Your task to perform on an android device: Search for sushi restaurants on Maps Image 0: 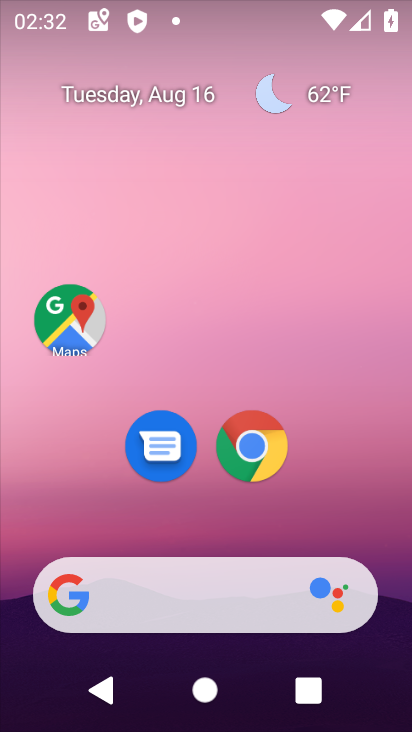
Step 0: press home button
Your task to perform on an android device: Search for sushi restaurants on Maps Image 1: 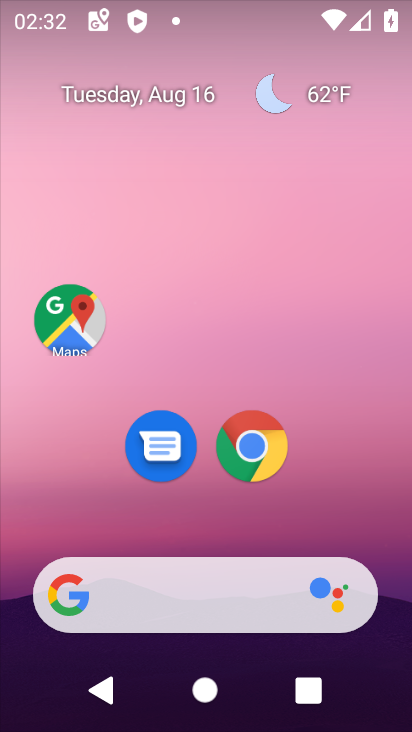
Step 1: click (70, 321)
Your task to perform on an android device: Search for sushi restaurants on Maps Image 2: 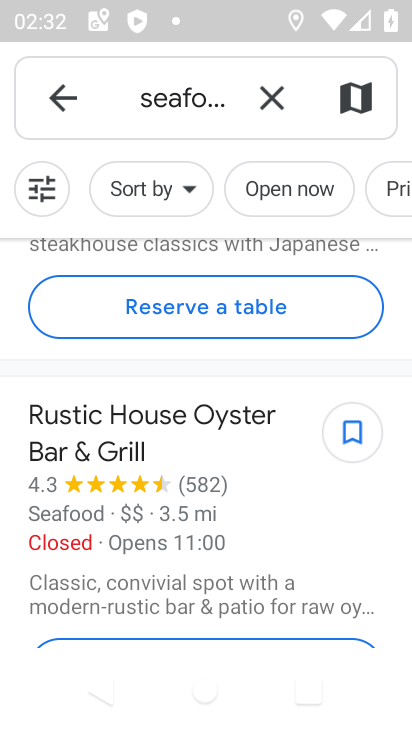
Step 2: click (272, 96)
Your task to perform on an android device: Search for sushi restaurants on Maps Image 3: 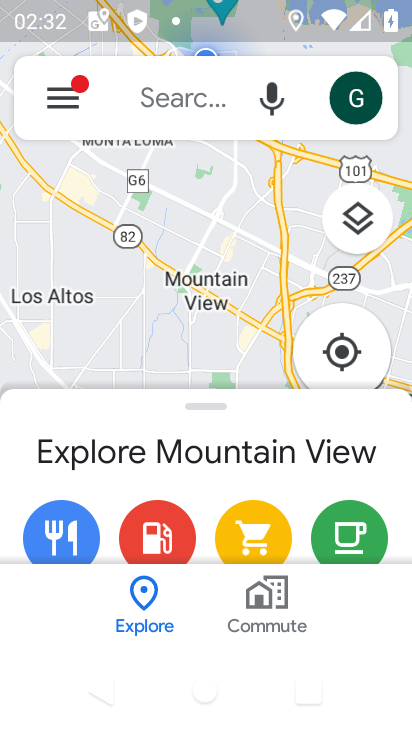
Step 3: click (166, 101)
Your task to perform on an android device: Search for sushi restaurants on Maps Image 4: 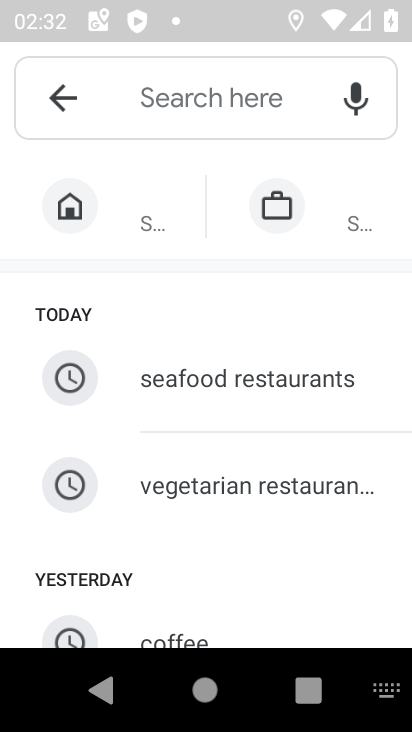
Step 4: drag from (204, 520) to (223, 204)
Your task to perform on an android device: Search for sushi restaurants on Maps Image 5: 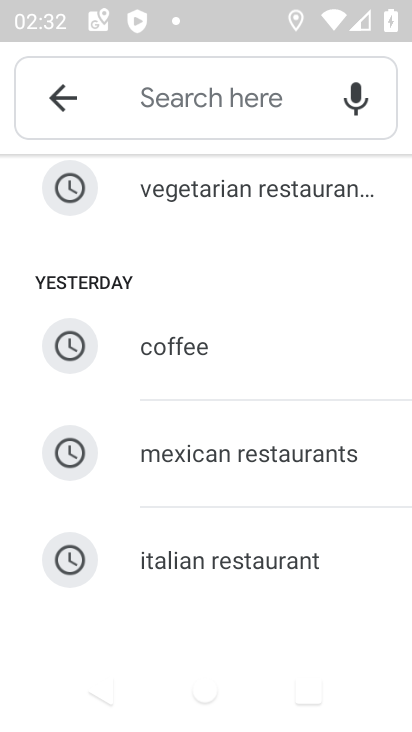
Step 5: drag from (174, 528) to (181, 237)
Your task to perform on an android device: Search for sushi restaurants on Maps Image 6: 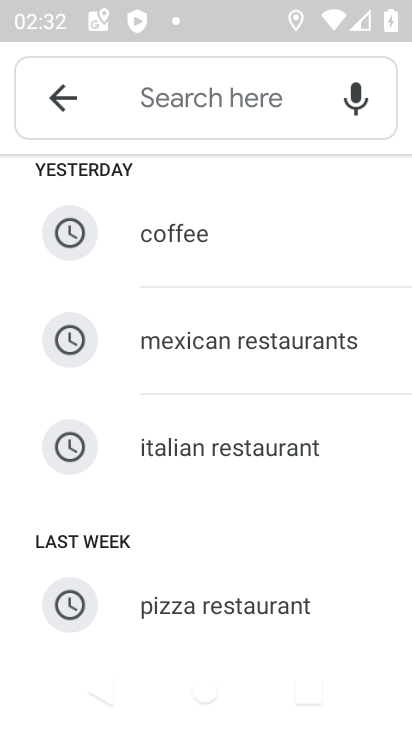
Step 6: drag from (192, 617) to (215, 236)
Your task to perform on an android device: Search for sushi restaurants on Maps Image 7: 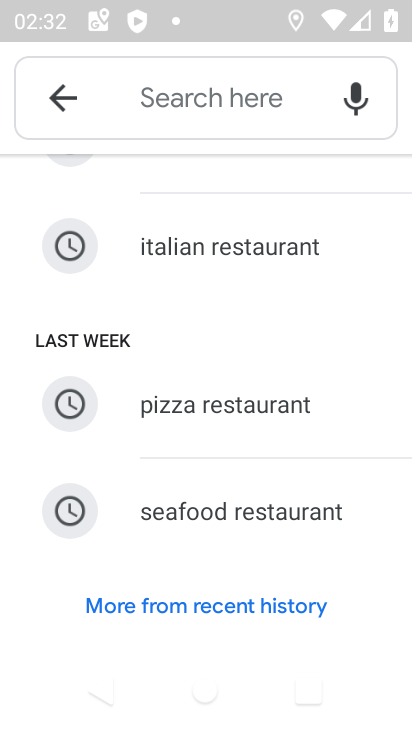
Step 7: click (160, 106)
Your task to perform on an android device: Search for sushi restaurants on Maps Image 8: 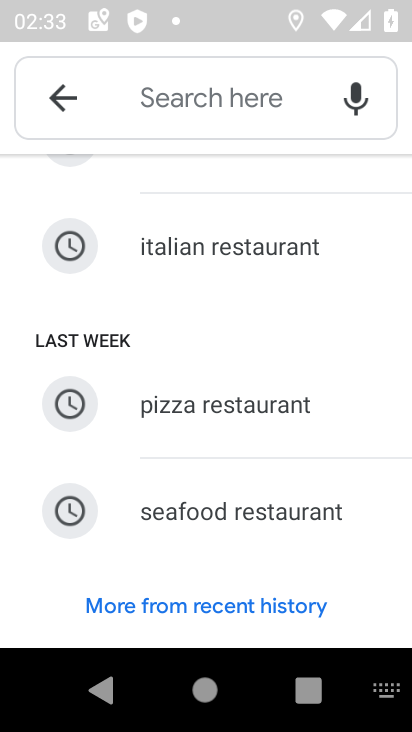
Step 8: type "sushi"
Your task to perform on an android device: Search for sushi restaurants on Maps Image 9: 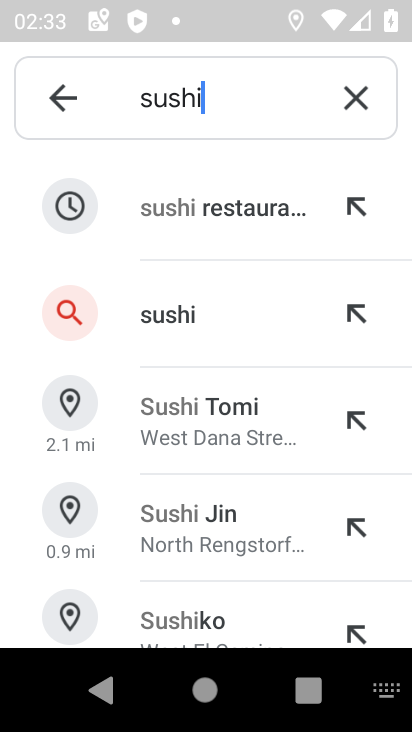
Step 9: click (219, 199)
Your task to perform on an android device: Search for sushi restaurants on Maps Image 10: 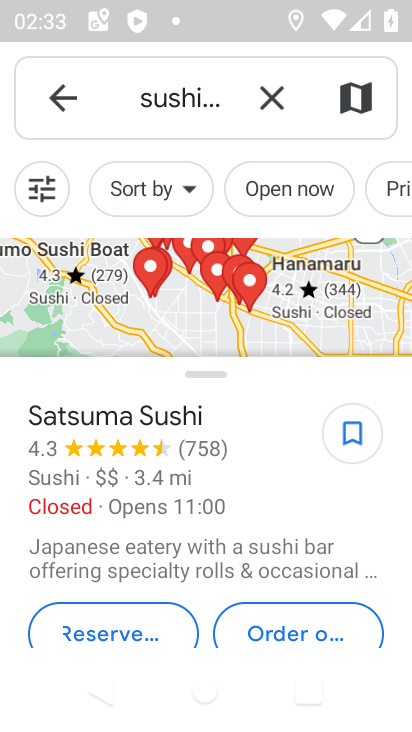
Step 10: task complete